Your task to perform on an android device: Open calendar and show me the third week of next month Image 0: 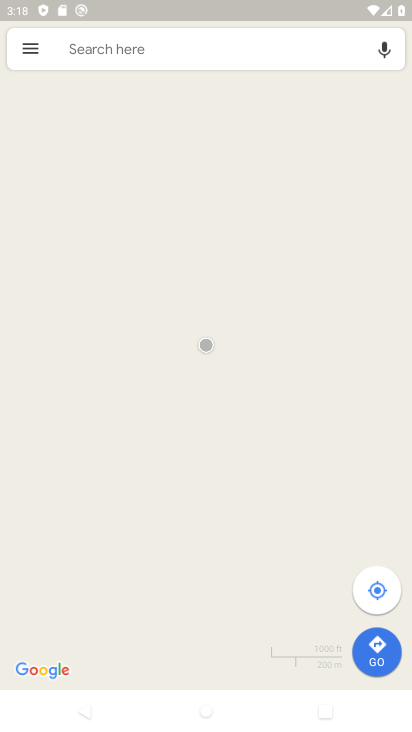
Step 0: press home button
Your task to perform on an android device: Open calendar and show me the third week of next month Image 1: 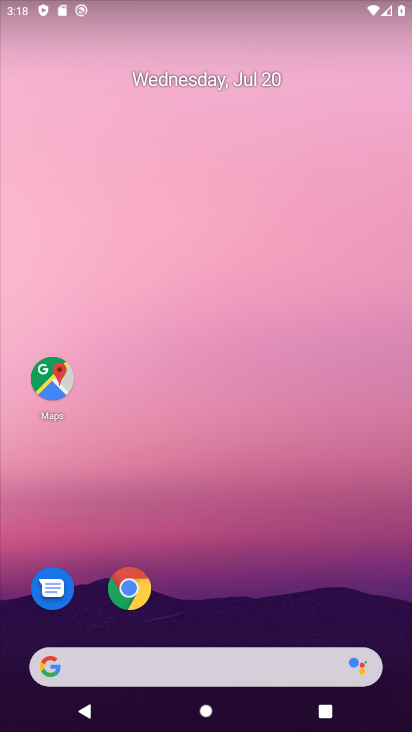
Step 1: drag from (348, 574) to (294, 76)
Your task to perform on an android device: Open calendar and show me the third week of next month Image 2: 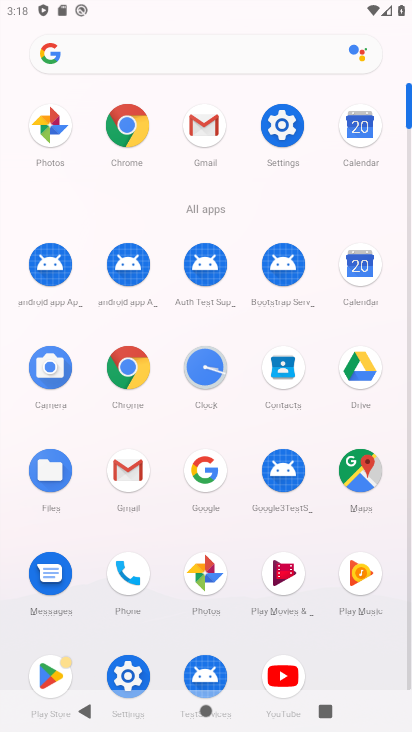
Step 2: click (352, 261)
Your task to perform on an android device: Open calendar and show me the third week of next month Image 3: 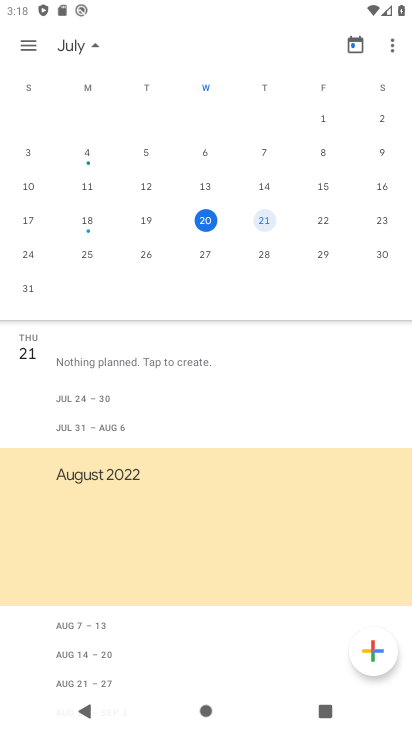
Step 3: click (66, 46)
Your task to perform on an android device: Open calendar and show me the third week of next month Image 4: 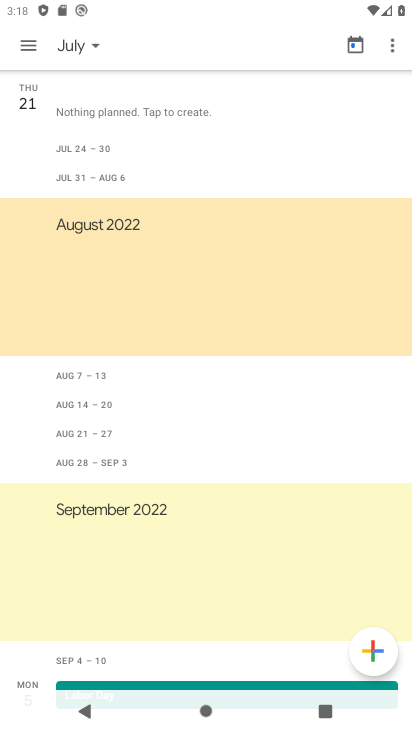
Step 4: click (28, 43)
Your task to perform on an android device: Open calendar and show me the third week of next month Image 5: 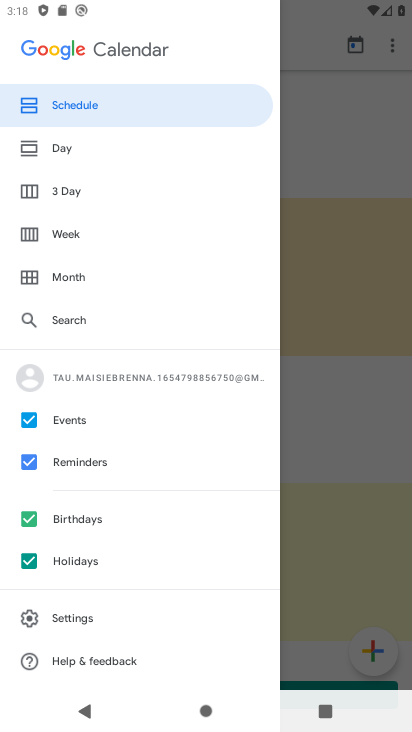
Step 5: click (45, 235)
Your task to perform on an android device: Open calendar and show me the third week of next month Image 6: 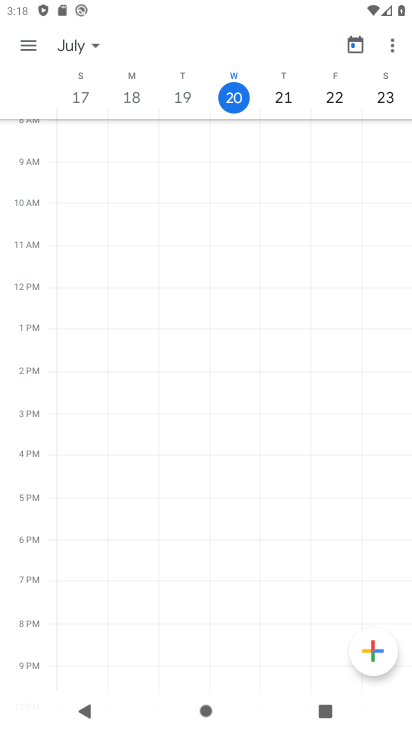
Step 6: click (81, 45)
Your task to perform on an android device: Open calendar and show me the third week of next month Image 7: 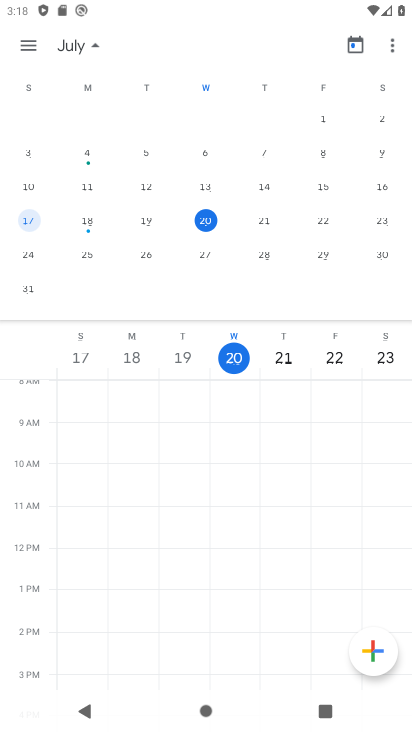
Step 7: drag from (374, 205) to (67, 201)
Your task to perform on an android device: Open calendar and show me the third week of next month Image 8: 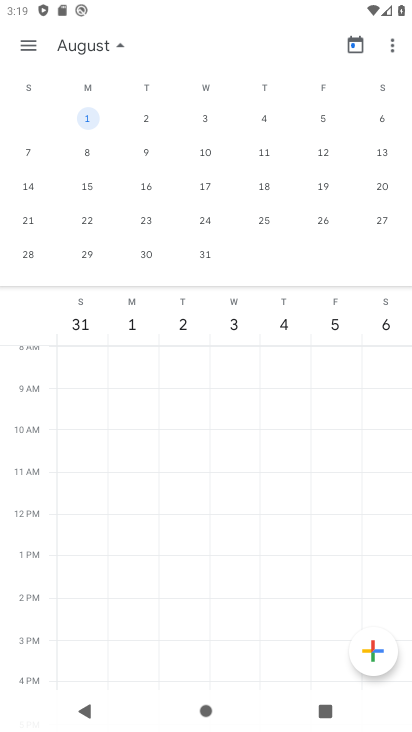
Step 8: click (86, 188)
Your task to perform on an android device: Open calendar and show me the third week of next month Image 9: 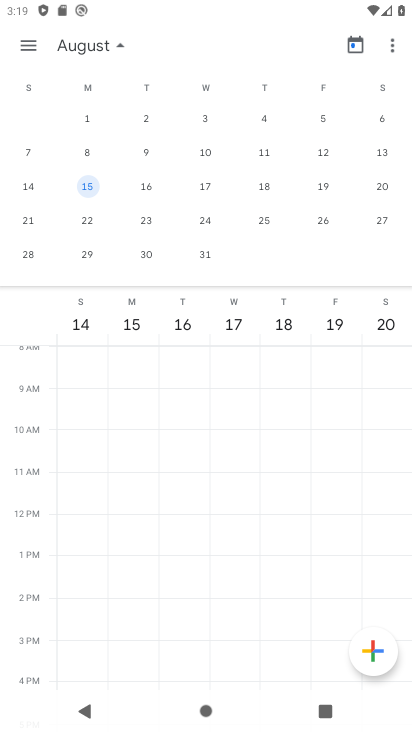
Step 9: task complete